Your task to perform on an android device: delete the emails in spam in the gmail app Image 0: 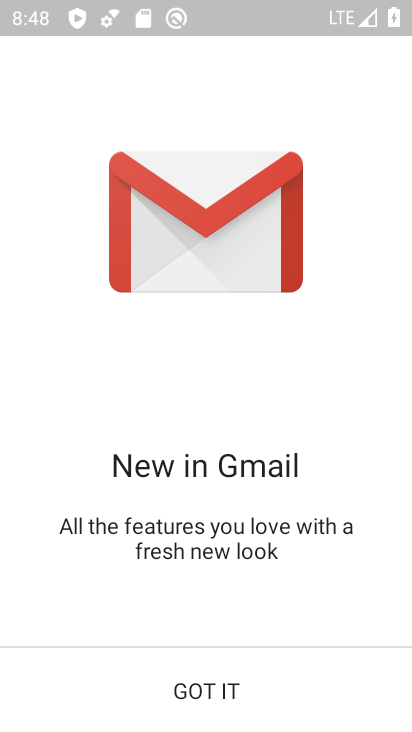
Step 0: click (197, 699)
Your task to perform on an android device: delete the emails in spam in the gmail app Image 1: 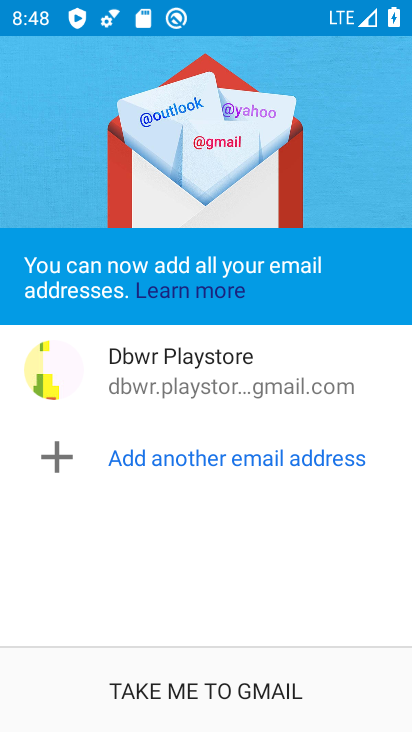
Step 1: click (197, 698)
Your task to perform on an android device: delete the emails in spam in the gmail app Image 2: 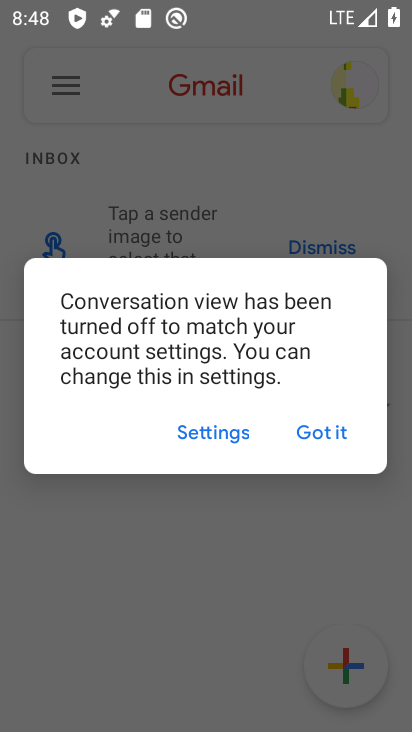
Step 2: click (342, 439)
Your task to perform on an android device: delete the emails in spam in the gmail app Image 3: 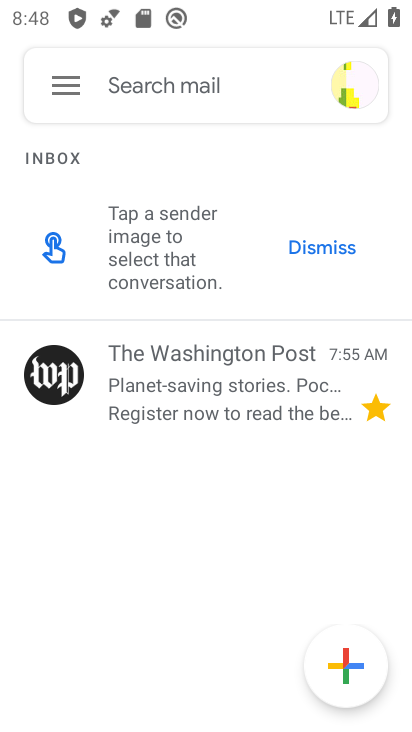
Step 3: click (68, 83)
Your task to perform on an android device: delete the emails in spam in the gmail app Image 4: 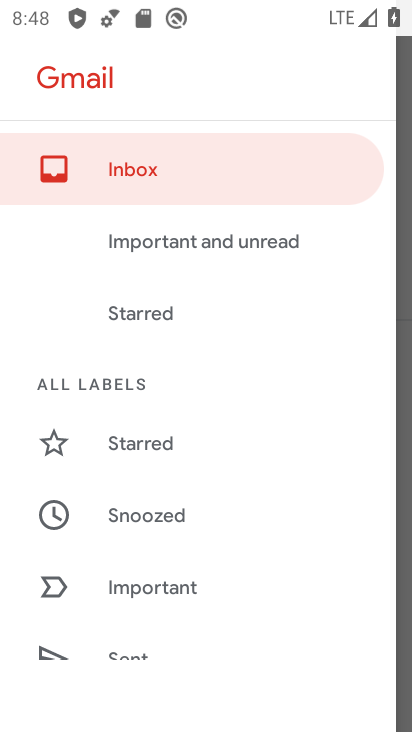
Step 4: drag from (191, 602) to (161, 232)
Your task to perform on an android device: delete the emails in spam in the gmail app Image 5: 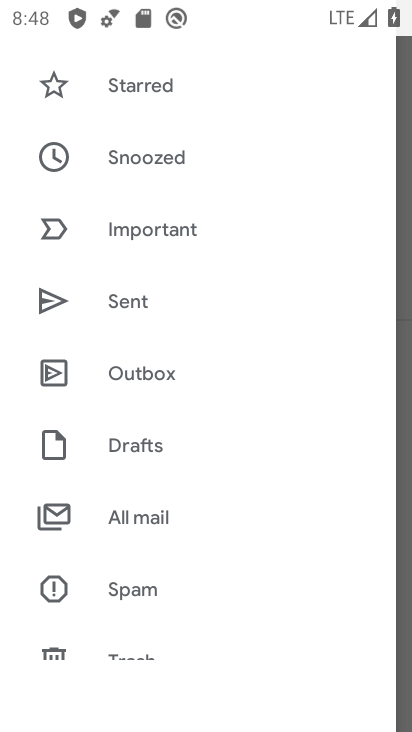
Step 5: click (141, 595)
Your task to perform on an android device: delete the emails in spam in the gmail app Image 6: 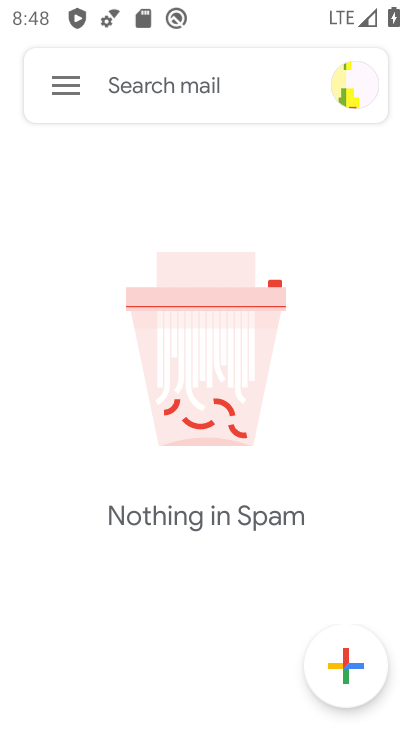
Step 6: task complete